Your task to perform on an android device: change alarm snooze length Image 0: 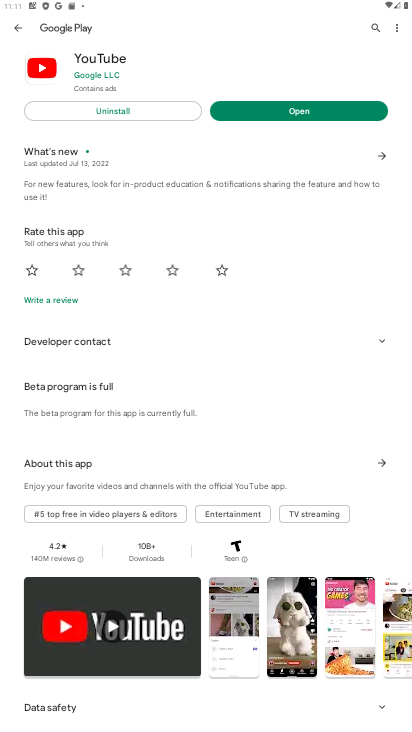
Step 0: press home button
Your task to perform on an android device: change alarm snooze length Image 1: 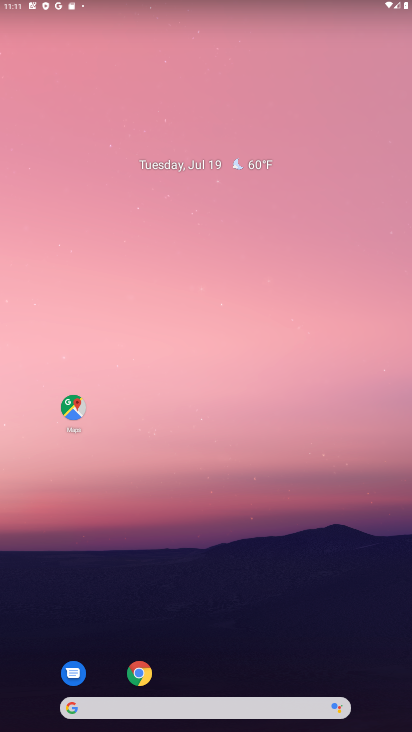
Step 1: drag from (374, 628) to (332, 128)
Your task to perform on an android device: change alarm snooze length Image 2: 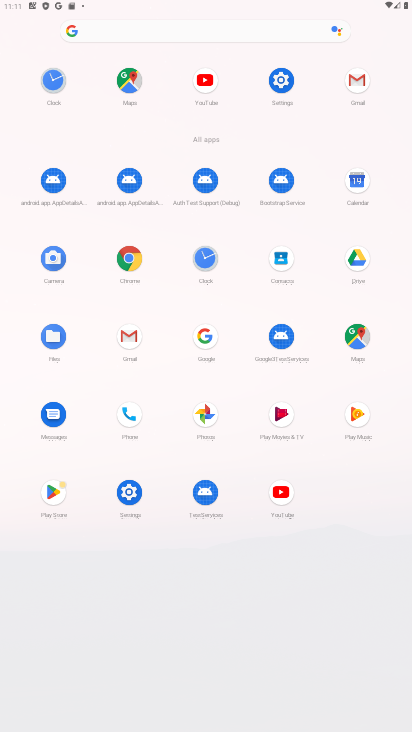
Step 2: click (205, 260)
Your task to perform on an android device: change alarm snooze length Image 3: 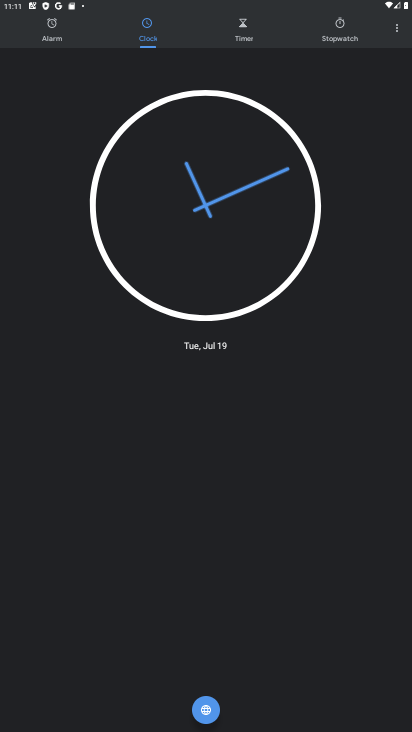
Step 3: click (397, 34)
Your task to perform on an android device: change alarm snooze length Image 4: 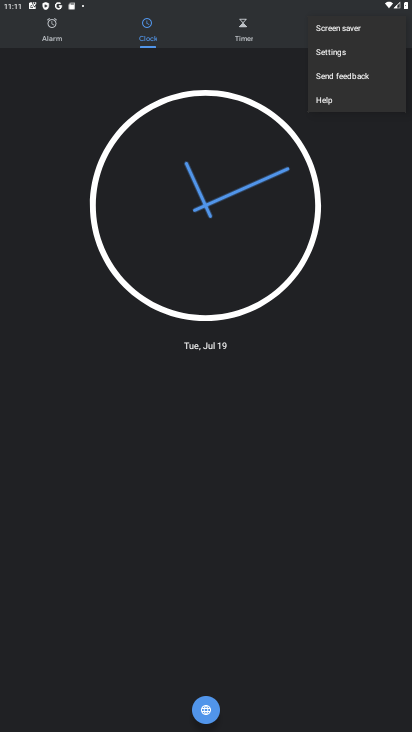
Step 4: click (327, 50)
Your task to perform on an android device: change alarm snooze length Image 5: 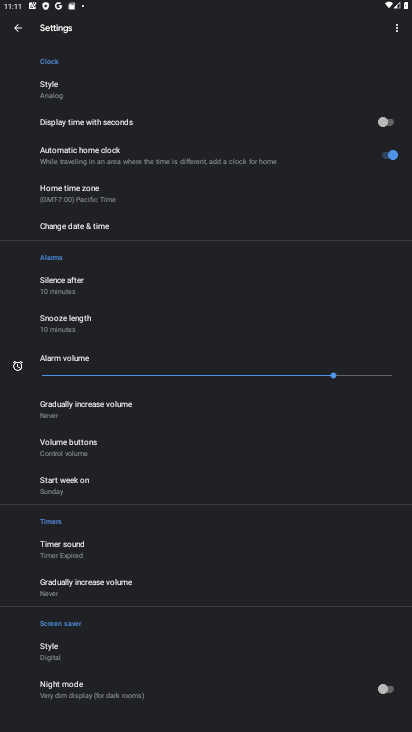
Step 5: click (63, 320)
Your task to perform on an android device: change alarm snooze length Image 6: 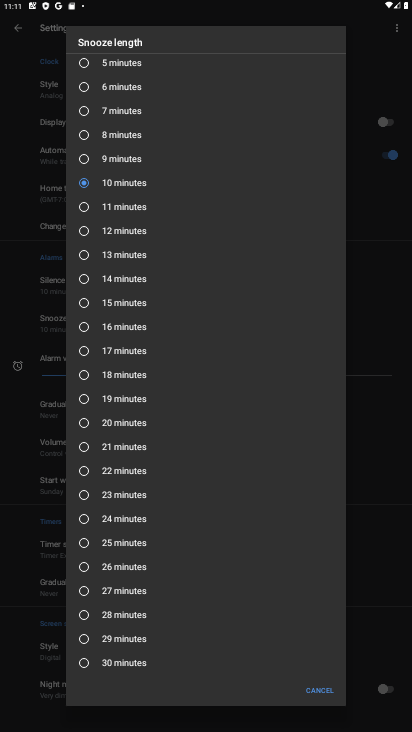
Step 6: click (84, 300)
Your task to perform on an android device: change alarm snooze length Image 7: 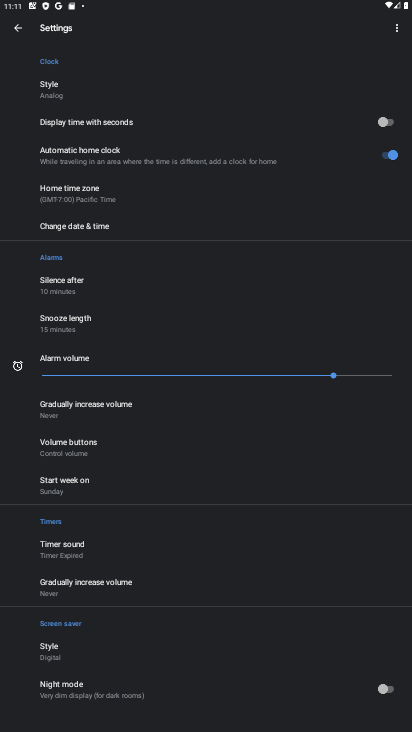
Step 7: task complete